Your task to perform on an android device: Open calendar and show me the third week of next month Image 0: 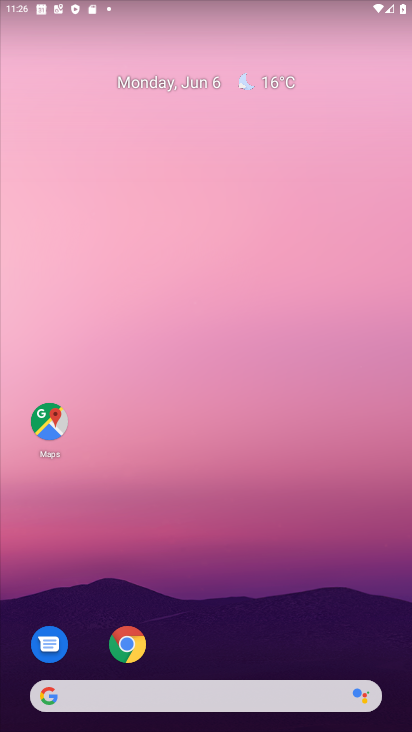
Step 0: drag from (257, 545) to (183, 17)
Your task to perform on an android device: Open calendar and show me the third week of next month Image 1: 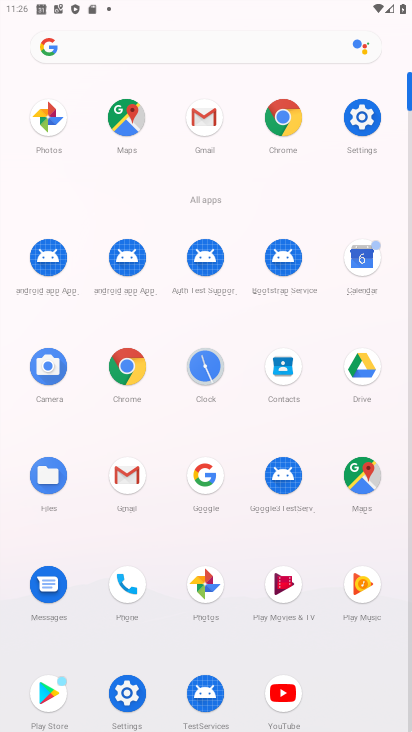
Step 1: drag from (6, 574) to (1, 203)
Your task to perform on an android device: Open calendar and show me the third week of next month Image 2: 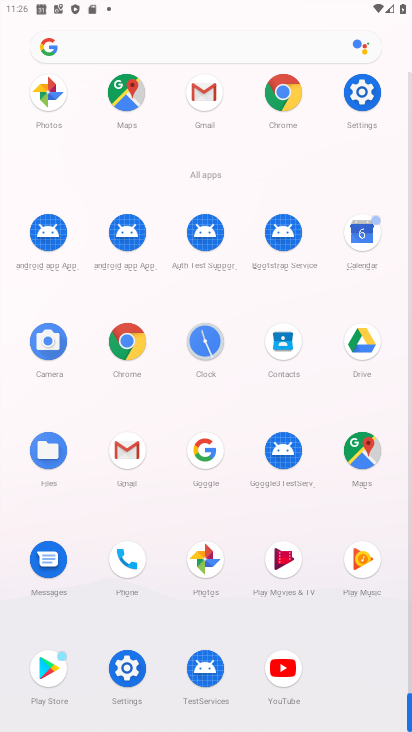
Step 2: click (359, 228)
Your task to perform on an android device: Open calendar and show me the third week of next month Image 3: 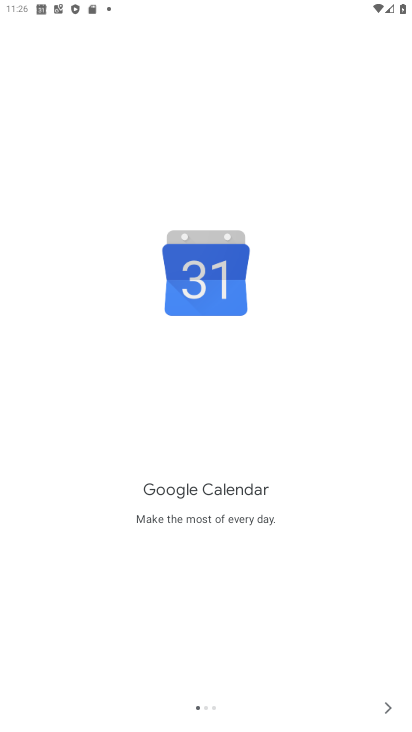
Step 3: click (381, 708)
Your task to perform on an android device: Open calendar and show me the third week of next month Image 4: 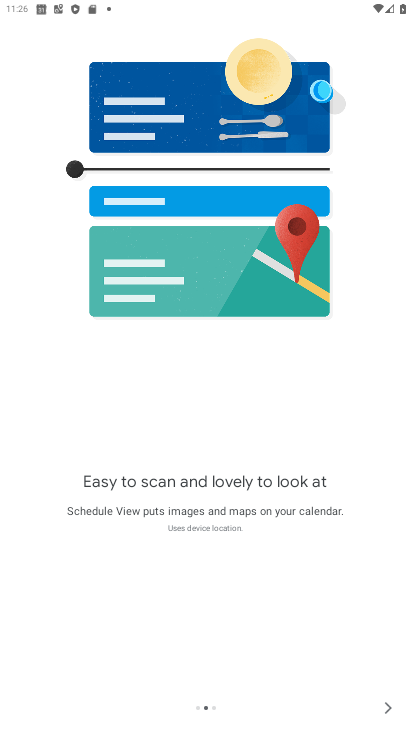
Step 4: click (381, 706)
Your task to perform on an android device: Open calendar and show me the third week of next month Image 5: 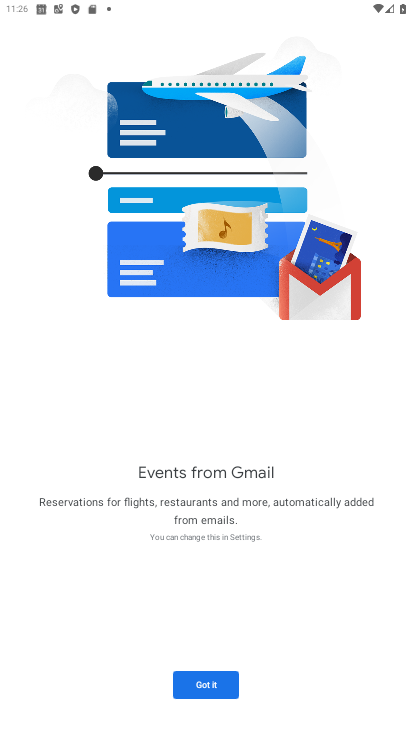
Step 5: click (223, 683)
Your task to perform on an android device: Open calendar and show me the third week of next month Image 6: 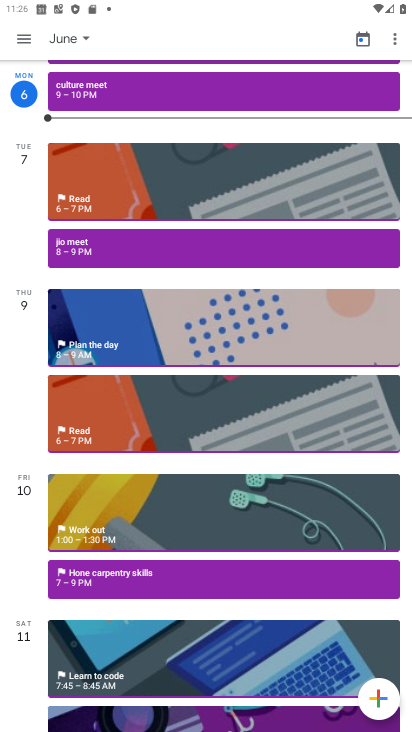
Step 6: click (18, 35)
Your task to perform on an android device: Open calendar and show me the third week of next month Image 7: 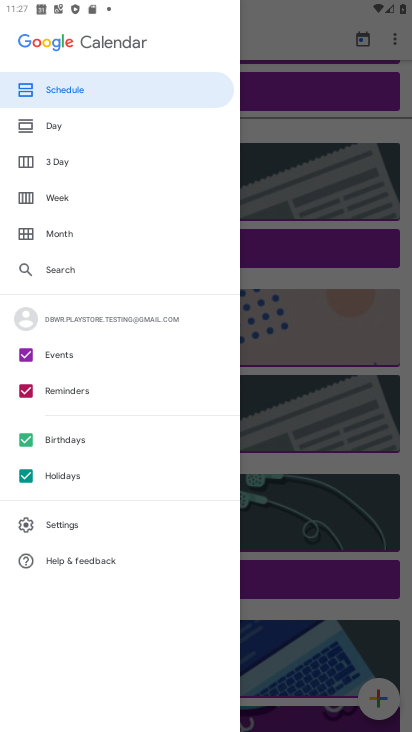
Step 7: drag from (143, 188) to (143, 415)
Your task to perform on an android device: Open calendar and show me the third week of next month Image 8: 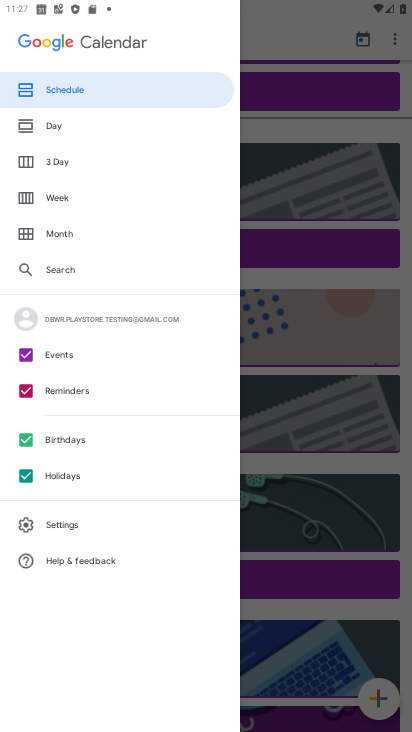
Step 8: click (72, 199)
Your task to perform on an android device: Open calendar and show me the third week of next month Image 9: 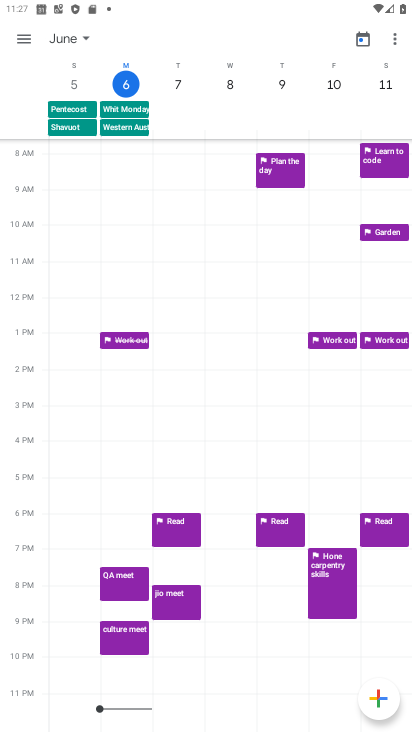
Step 9: click (74, 36)
Your task to perform on an android device: Open calendar and show me the third week of next month Image 10: 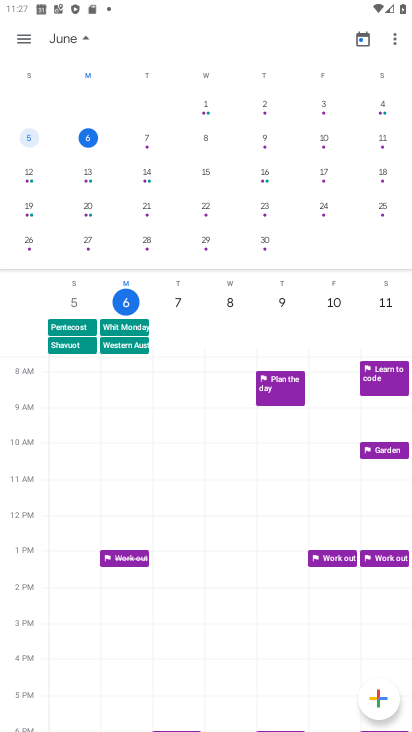
Step 10: drag from (383, 176) to (1, 139)
Your task to perform on an android device: Open calendar and show me the third week of next month Image 11: 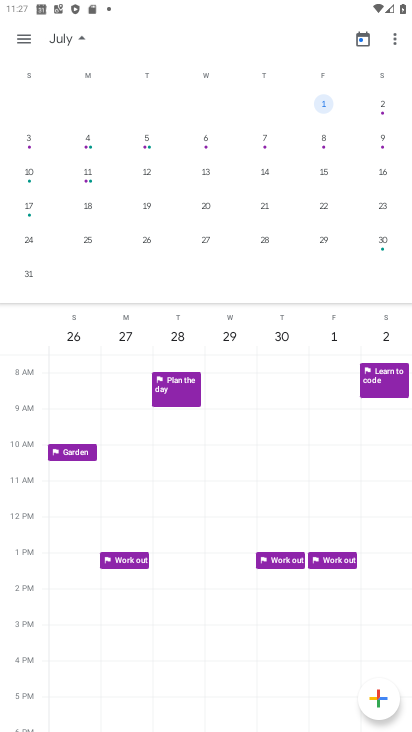
Step 11: click (29, 201)
Your task to perform on an android device: Open calendar and show me the third week of next month Image 12: 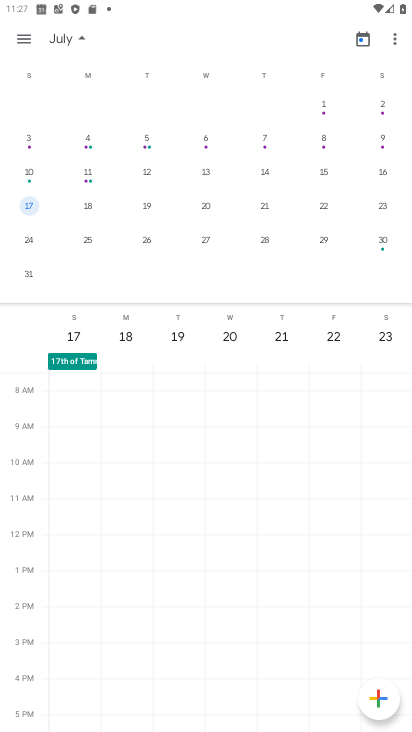
Step 12: click (28, 48)
Your task to perform on an android device: Open calendar and show me the third week of next month Image 13: 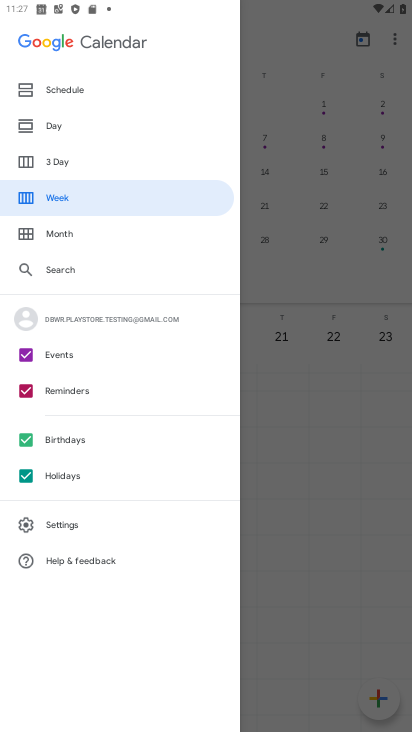
Step 13: click (100, 199)
Your task to perform on an android device: Open calendar and show me the third week of next month Image 14: 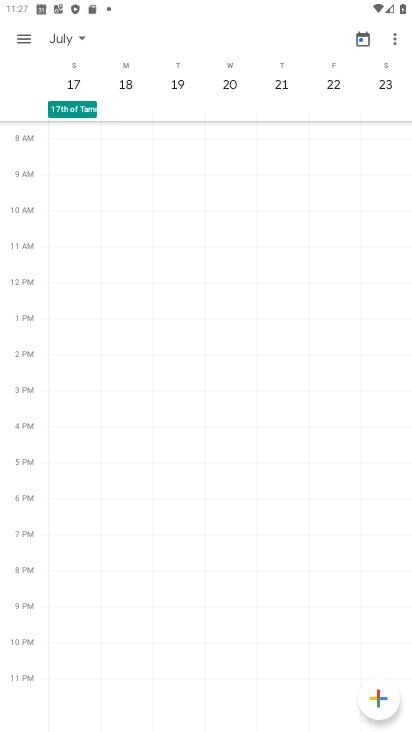
Step 14: task complete